Your task to perform on an android device: toggle show notifications on the lock screen Image 0: 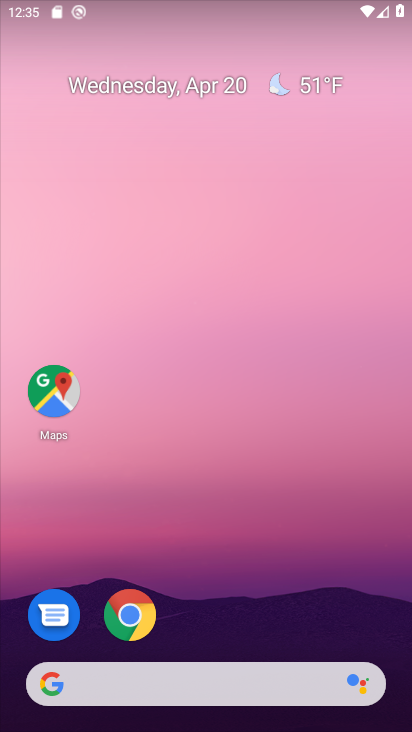
Step 0: drag from (156, 676) to (167, 221)
Your task to perform on an android device: toggle show notifications on the lock screen Image 1: 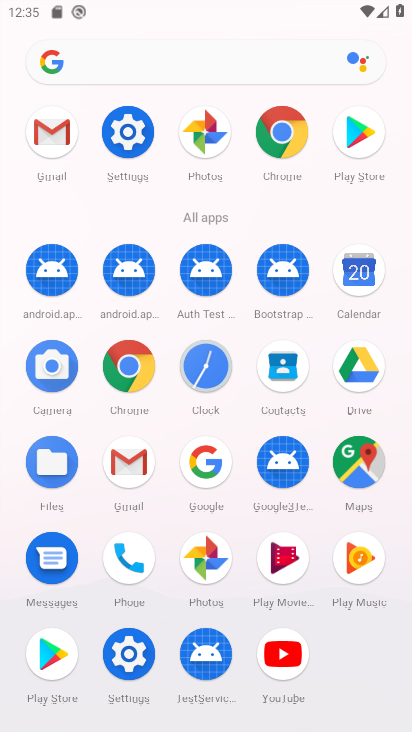
Step 1: click (131, 645)
Your task to perform on an android device: toggle show notifications on the lock screen Image 2: 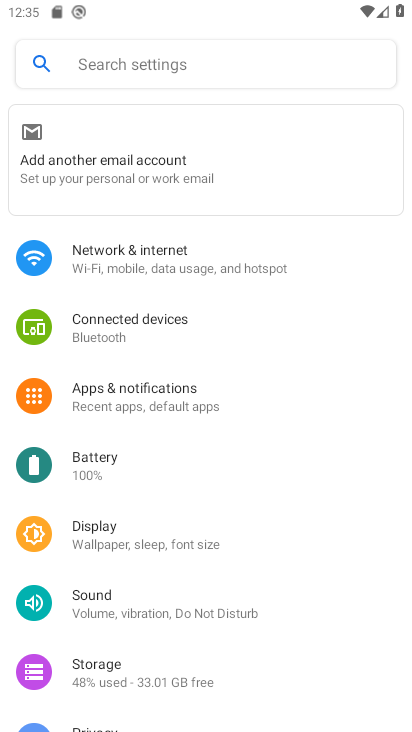
Step 2: click (96, 398)
Your task to perform on an android device: toggle show notifications on the lock screen Image 3: 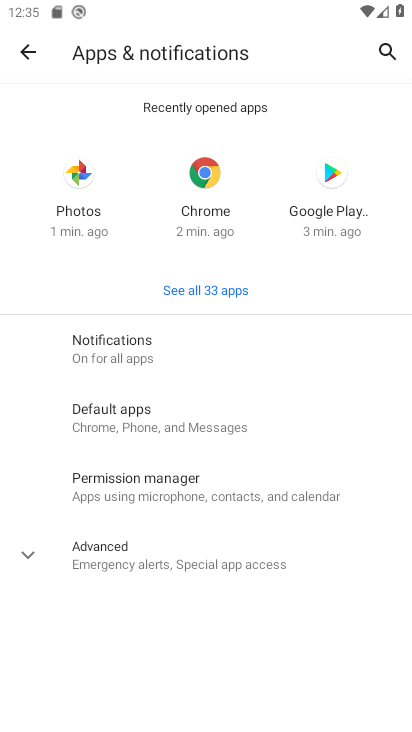
Step 3: click (123, 333)
Your task to perform on an android device: toggle show notifications on the lock screen Image 4: 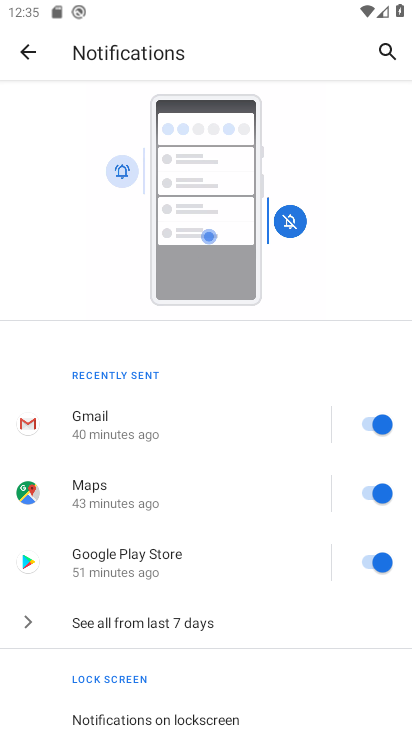
Step 4: drag from (165, 557) to (151, 72)
Your task to perform on an android device: toggle show notifications on the lock screen Image 5: 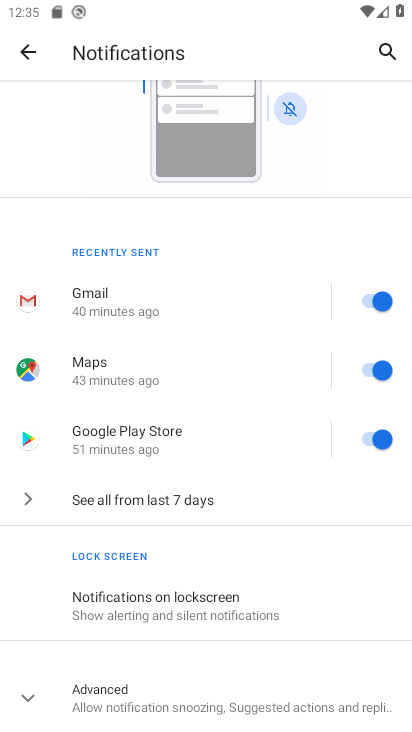
Step 5: click (209, 586)
Your task to perform on an android device: toggle show notifications on the lock screen Image 6: 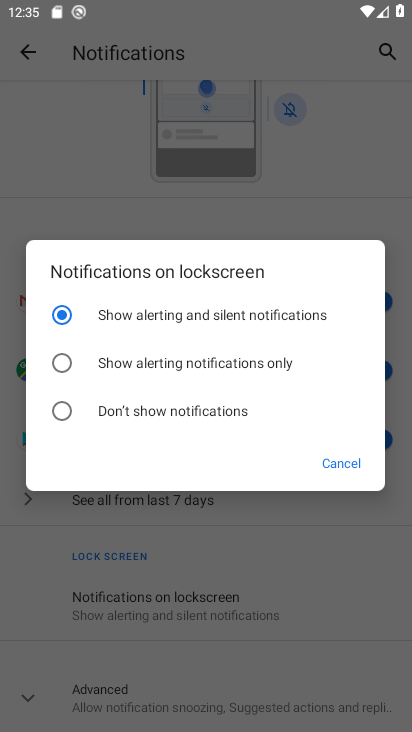
Step 6: click (110, 355)
Your task to perform on an android device: toggle show notifications on the lock screen Image 7: 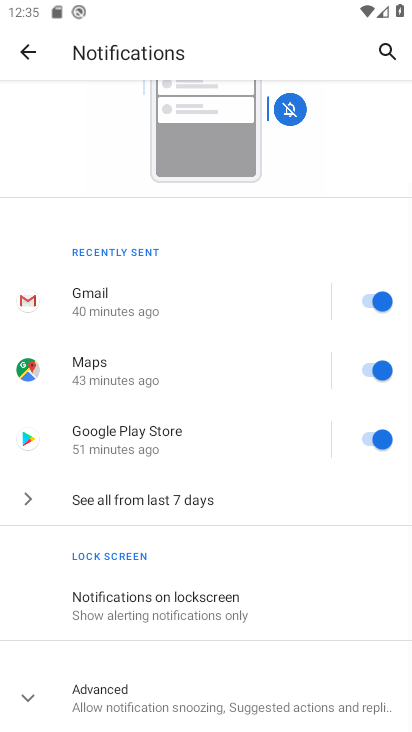
Step 7: task complete